Your task to perform on an android device: visit the assistant section in the google photos Image 0: 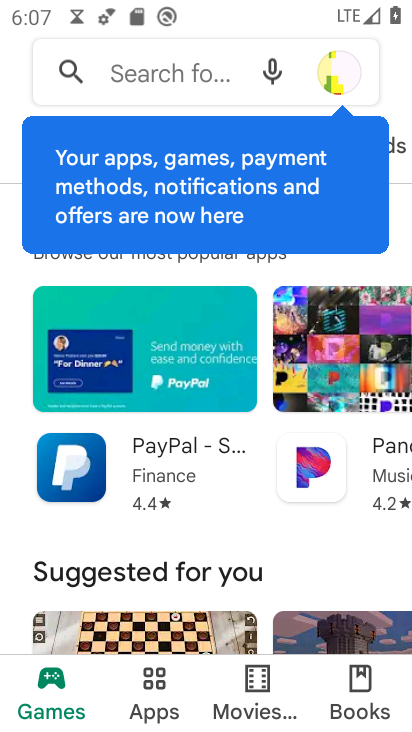
Step 0: press home button
Your task to perform on an android device: visit the assistant section in the google photos Image 1: 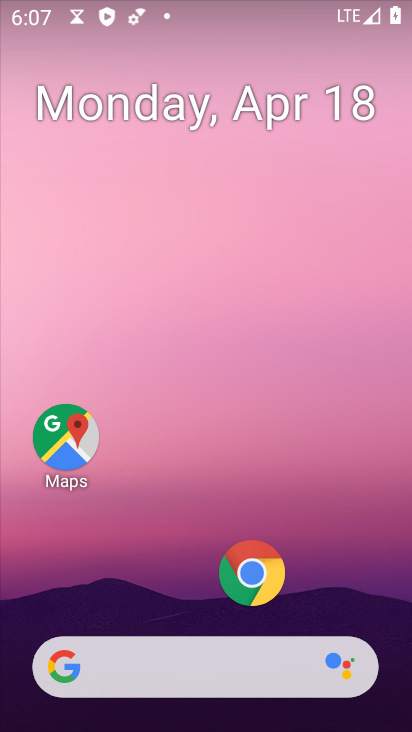
Step 1: drag from (206, 514) to (293, 1)
Your task to perform on an android device: visit the assistant section in the google photos Image 2: 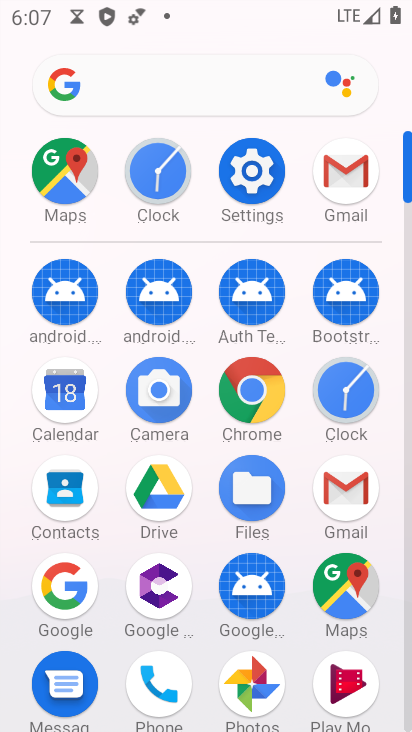
Step 2: click (250, 694)
Your task to perform on an android device: visit the assistant section in the google photos Image 3: 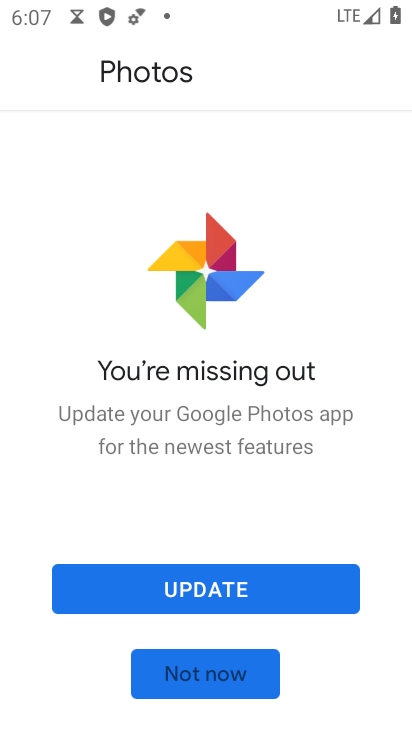
Step 3: click (237, 679)
Your task to perform on an android device: visit the assistant section in the google photos Image 4: 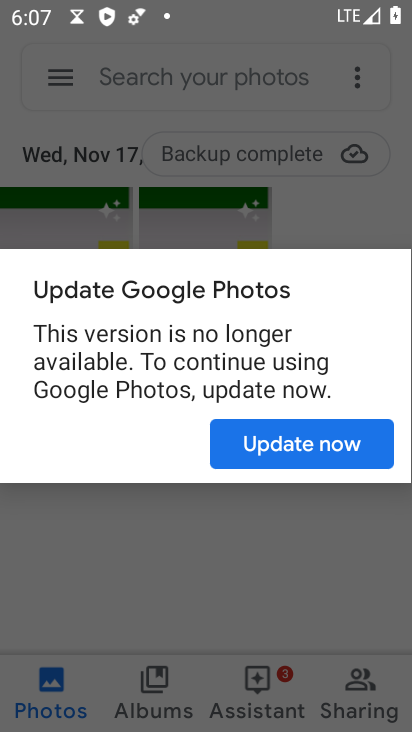
Step 4: click (291, 422)
Your task to perform on an android device: visit the assistant section in the google photos Image 5: 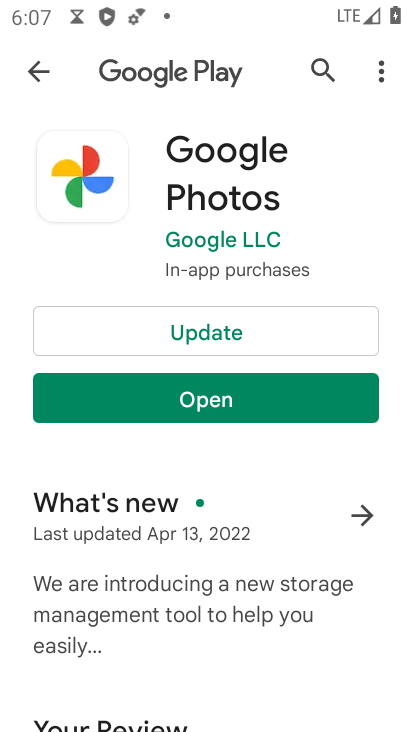
Step 5: click (225, 404)
Your task to perform on an android device: visit the assistant section in the google photos Image 6: 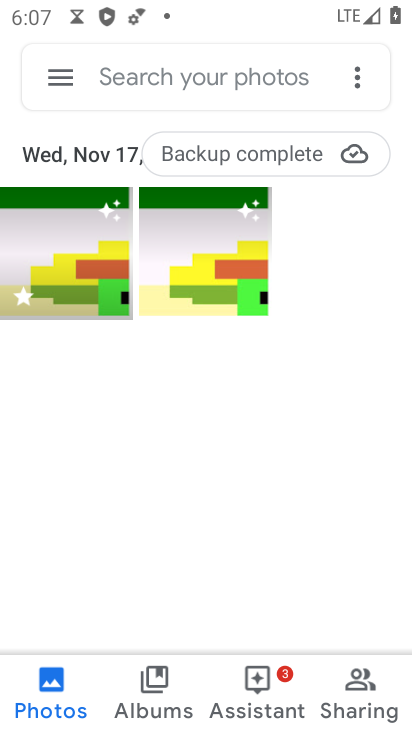
Step 6: click (255, 693)
Your task to perform on an android device: visit the assistant section in the google photos Image 7: 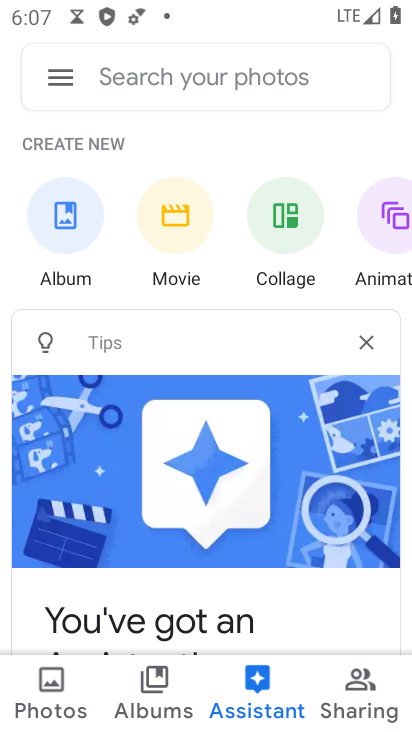
Step 7: task complete